Your task to perform on an android device: search for starred emails in the gmail app Image 0: 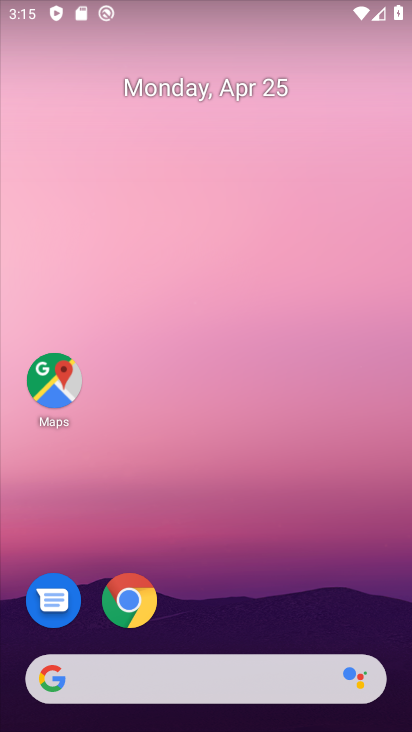
Step 0: drag from (239, 575) to (267, 26)
Your task to perform on an android device: search for starred emails in the gmail app Image 1: 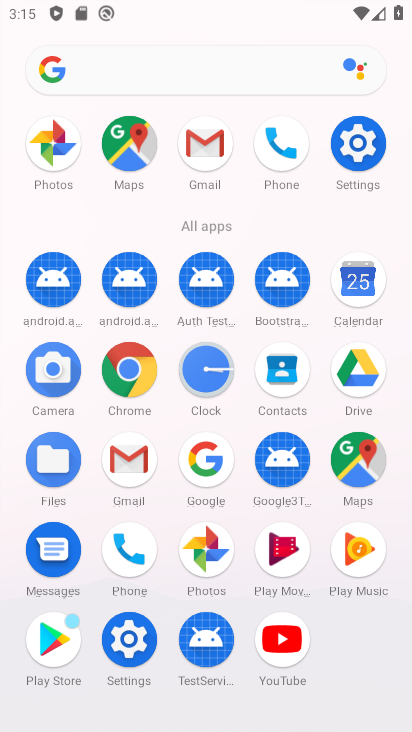
Step 1: click (207, 138)
Your task to perform on an android device: search for starred emails in the gmail app Image 2: 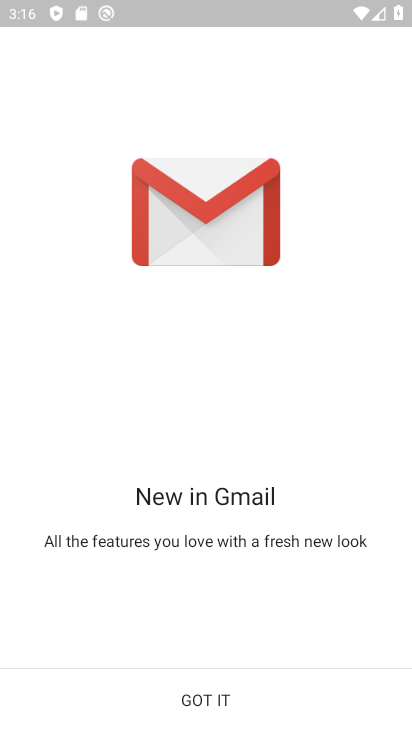
Step 2: click (211, 691)
Your task to perform on an android device: search for starred emails in the gmail app Image 3: 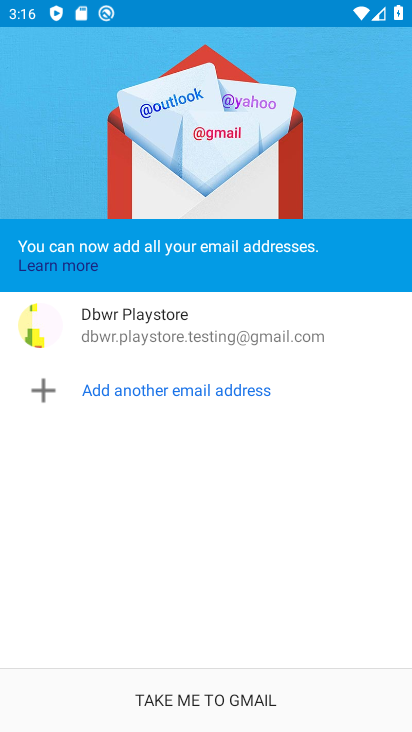
Step 3: click (211, 691)
Your task to perform on an android device: search for starred emails in the gmail app Image 4: 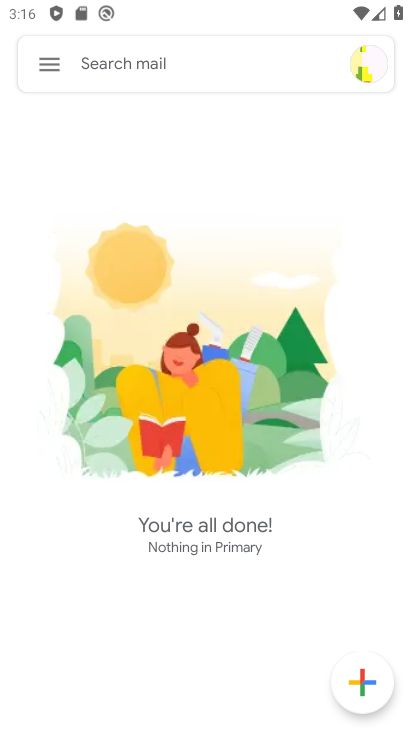
Step 4: click (50, 60)
Your task to perform on an android device: search for starred emails in the gmail app Image 5: 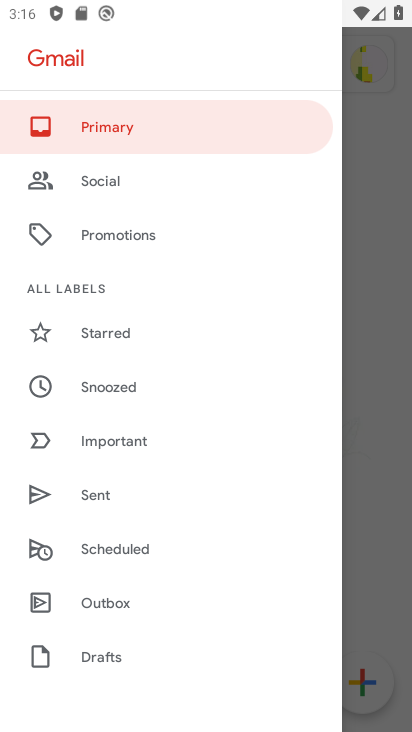
Step 5: click (143, 327)
Your task to perform on an android device: search for starred emails in the gmail app Image 6: 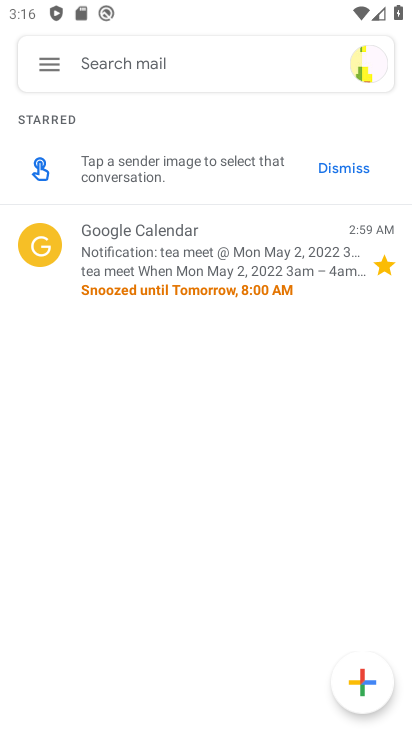
Step 6: task complete